Your task to perform on an android device: delete the emails in spam in the gmail app Image 0: 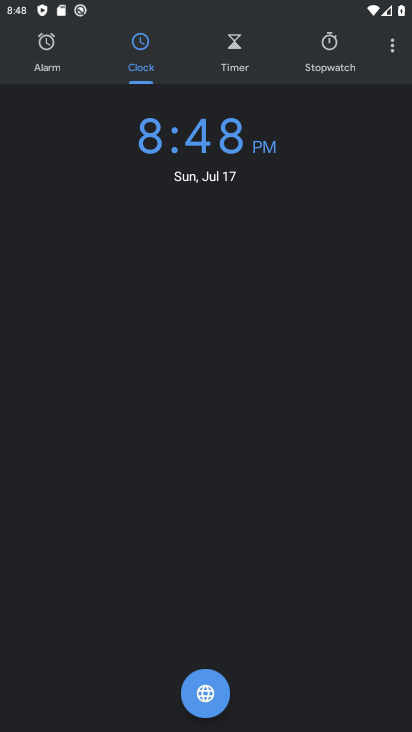
Step 0: press home button
Your task to perform on an android device: delete the emails in spam in the gmail app Image 1: 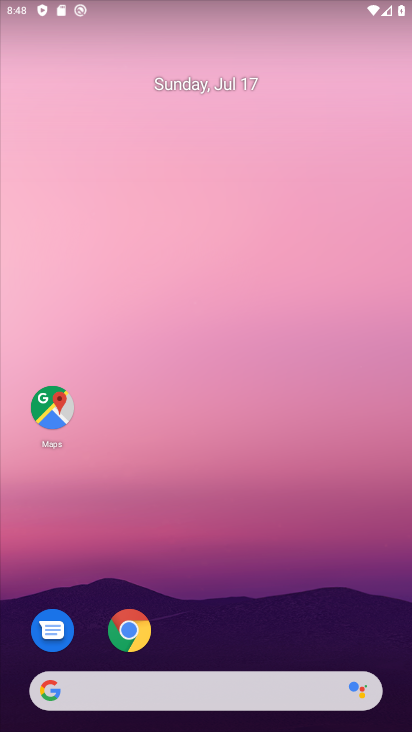
Step 1: drag from (180, 657) to (280, 100)
Your task to perform on an android device: delete the emails in spam in the gmail app Image 2: 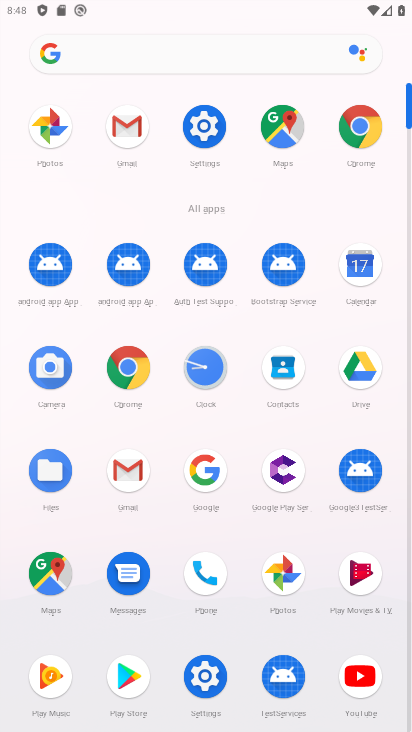
Step 2: click (119, 485)
Your task to perform on an android device: delete the emails in spam in the gmail app Image 3: 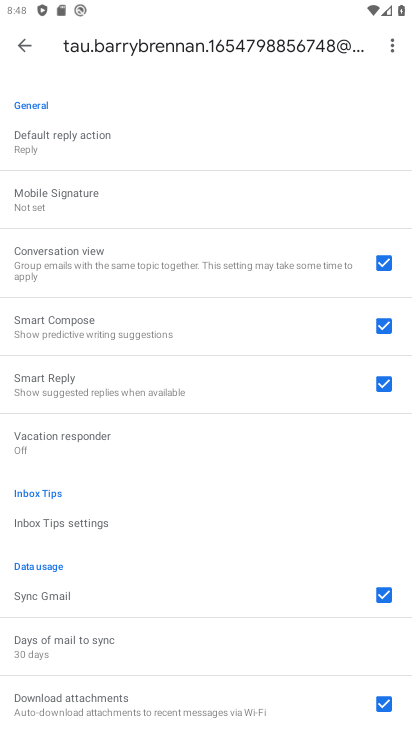
Step 3: press back button
Your task to perform on an android device: delete the emails in spam in the gmail app Image 4: 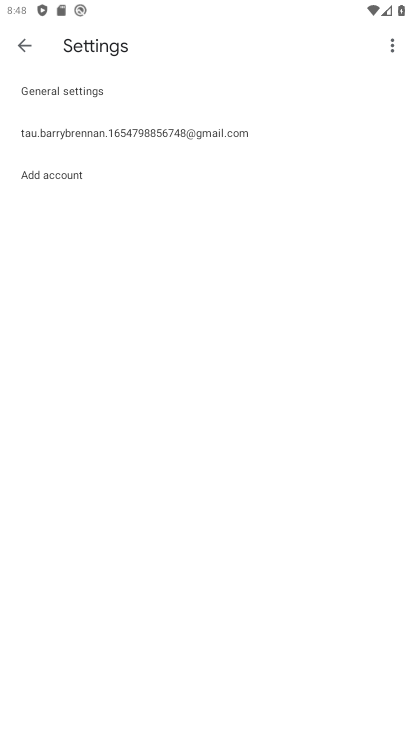
Step 4: press back button
Your task to perform on an android device: delete the emails in spam in the gmail app Image 5: 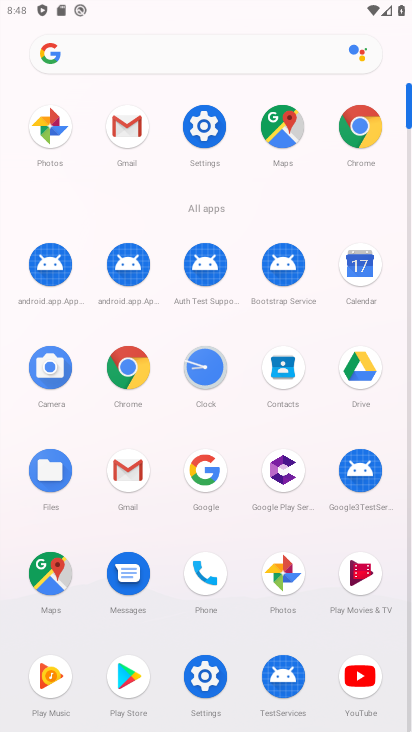
Step 5: click (137, 460)
Your task to perform on an android device: delete the emails in spam in the gmail app Image 6: 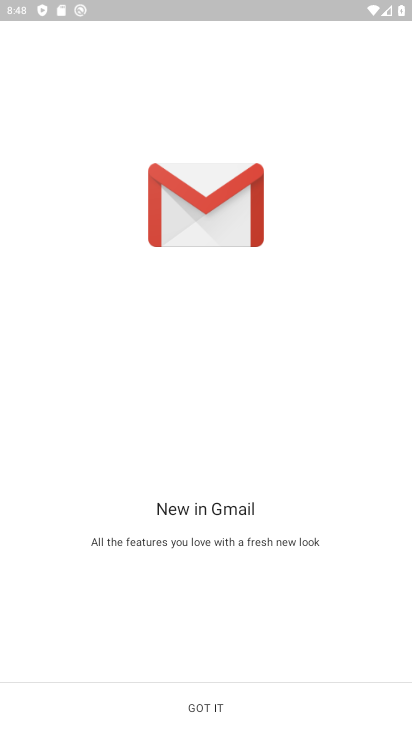
Step 6: click (226, 718)
Your task to perform on an android device: delete the emails in spam in the gmail app Image 7: 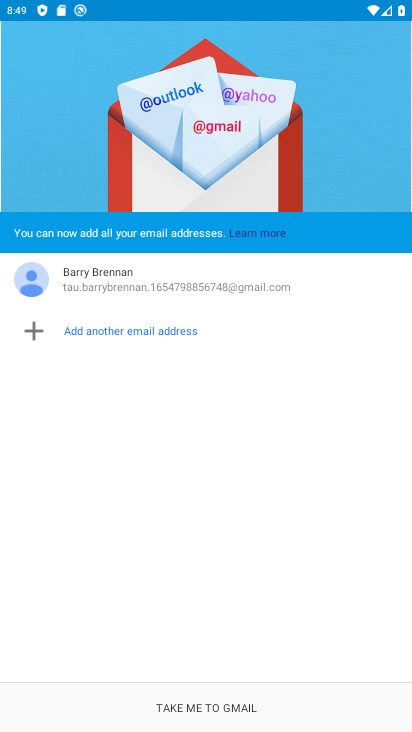
Step 7: click (226, 718)
Your task to perform on an android device: delete the emails in spam in the gmail app Image 8: 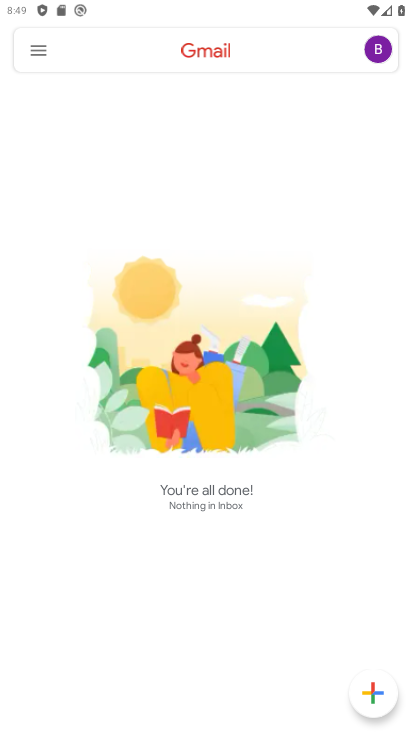
Step 8: click (47, 65)
Your task to perform on an android device: delete the emails in spam in the gmail app Image 9: 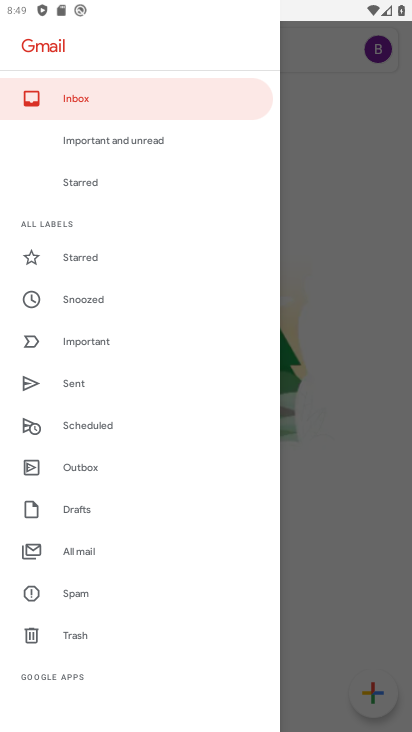
Step 9: click (80, 600)
Your task to perform on an android device: delete the emails in spam in the gmail app Image 10: 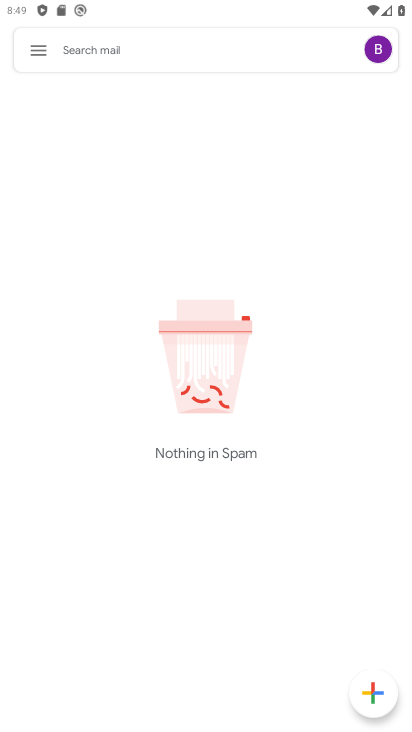
Step 10: task complete